Your task to perform on an android device: Go to battery settings Image 0: 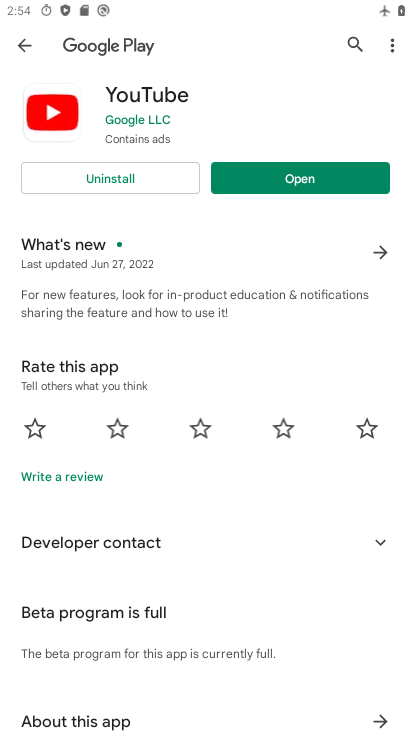
Step 0: press home button
Your task to perform on an android device: Go to battery settings Image 1: 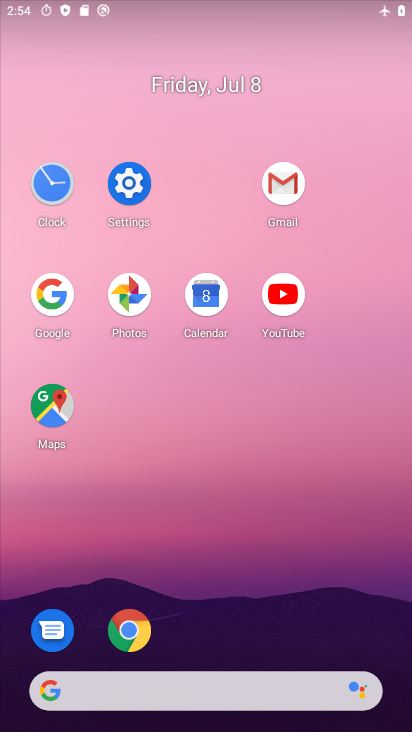
Step 1: click (131, 194)
Your task to perform on an android device: Go to battery settings Image 2: 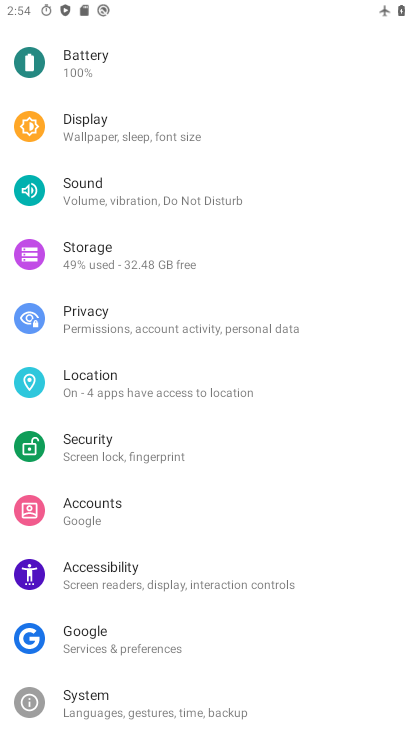
Step 2: drag from (349, 173) to (342, 379)
Your task to perform on an android device: Go to battery settings Image 3: 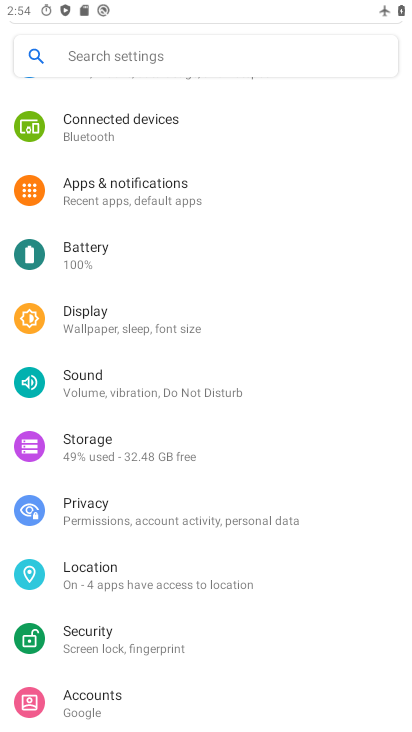
Step 3: click (155, 271)
Your task to perform on an android device: Go to battery settings Image 4: 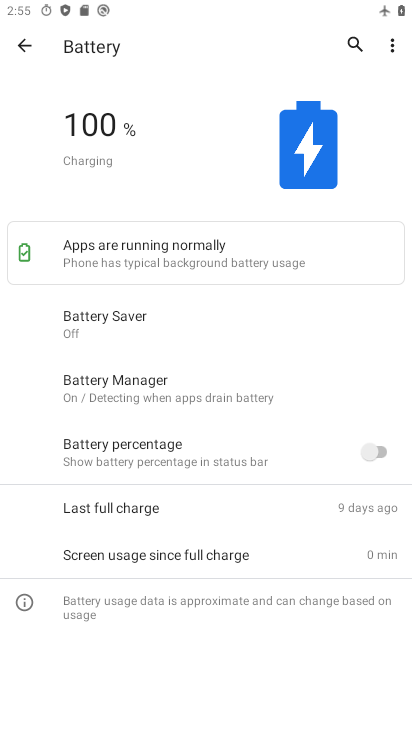
Step 4: task complete